Your task to perform on an android device: Turn on the flashlight Image 0: 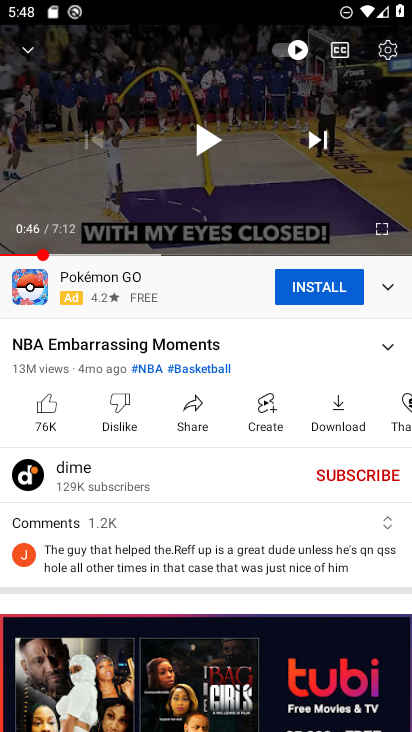
Step 0: press home button
Your task to perform on an android device: Turn on the flashlight Image 1: 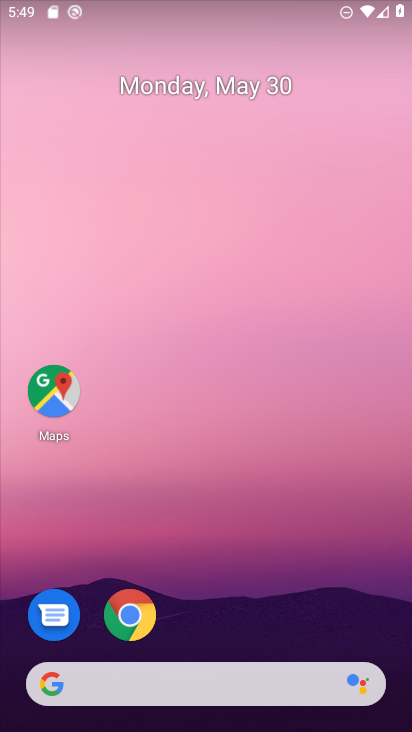
Step 1: drag from (217, 618) to (231, 72)
Your task to perform on an android device: Turn on the flashlight Image 2: 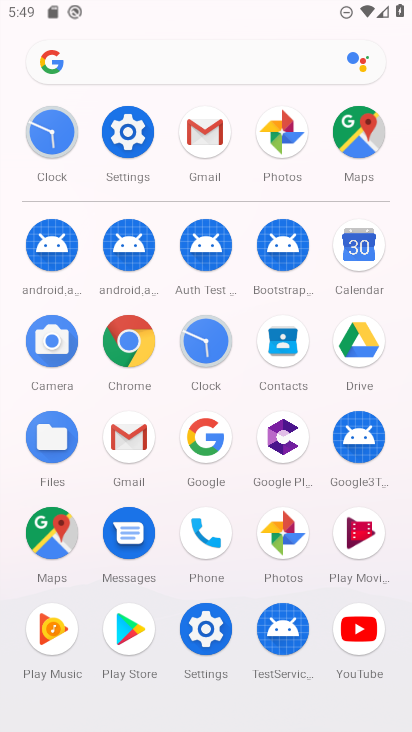
Step 2: click (129, 135)
Your task to perform on an android device: Turn on the flashlight Image 3: 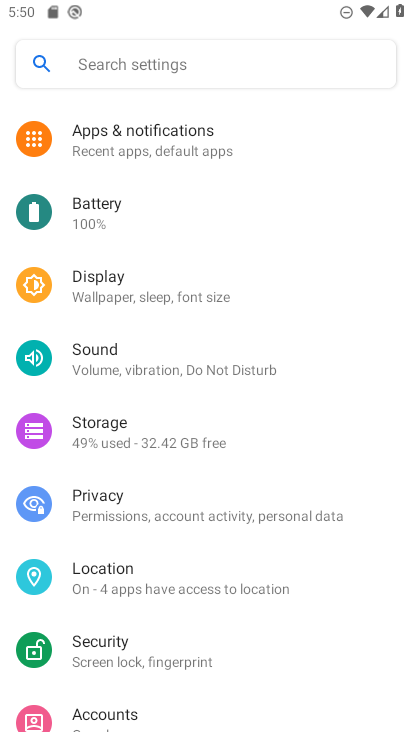
Step 3: task complete